Your task to perform on an android device: Do I have any events this weekend? Image 0: 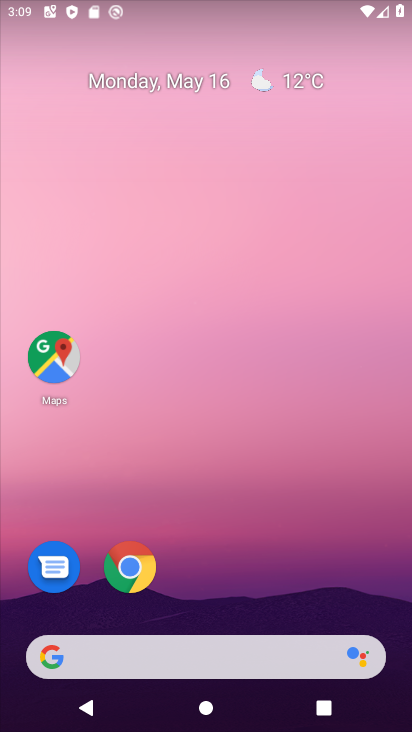
Step 0: drag from (256, 469) to (300, 145)
Your task to perform on an android device: Do I have any events this weekend? Image 1: 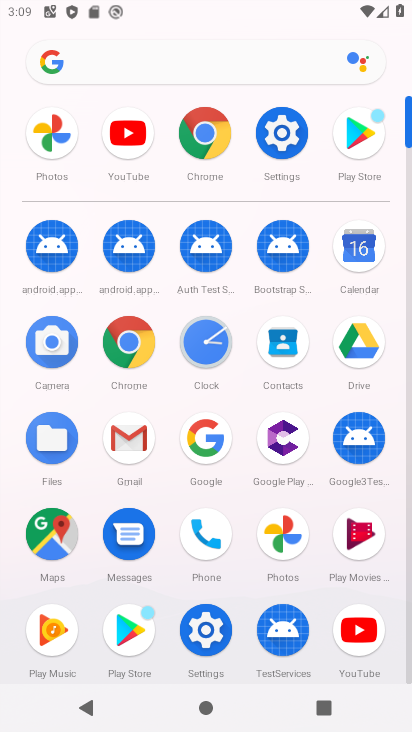
Step 1: click (348, 247)
Your task to perform on an android device: Do I have any events this weekend? Image 2: 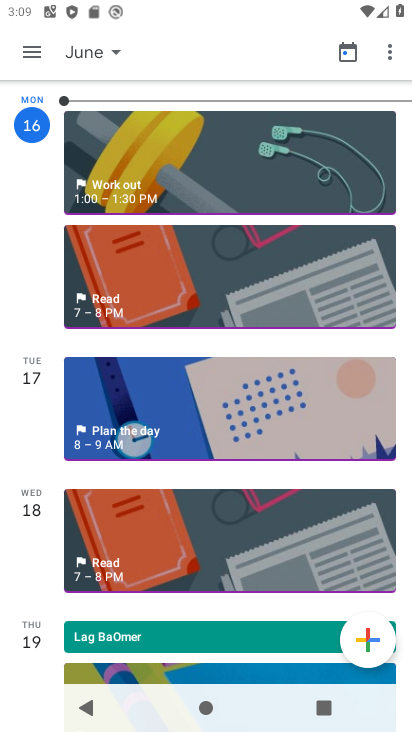
Step 2: click (33, 47)
Your task to perform on an android device: Do I have any events this weekend? Image 3: 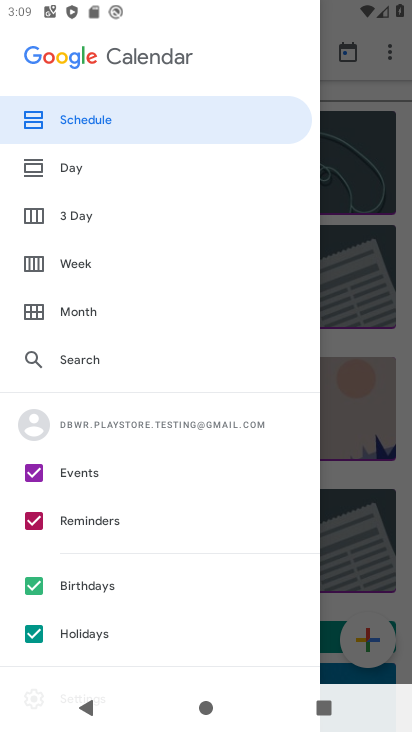
Step 3: click (78, 267)
Your task to perform on an android device: Do I have any events this weekend? Image 4: 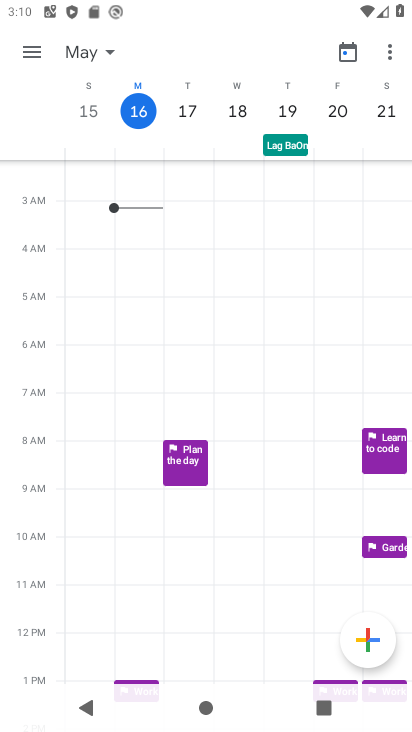
Step 4: click (52, 54)
Your task to perform on an android device: Do I have any events this weekend? Image 5: 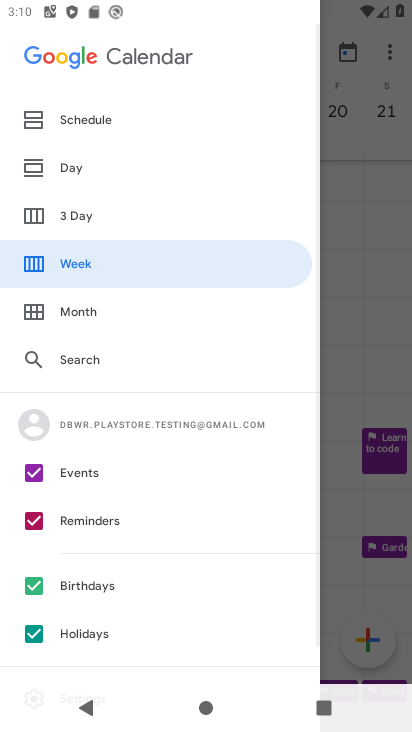
Step 5: click (90, 207)
Your task to perform on an android device: Do I have any events this weekend? Image 6: 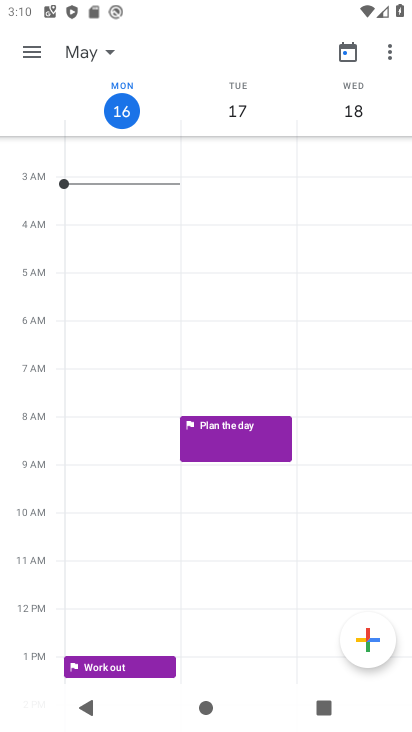
Step 6: task complete